Your task to perform on an android device: change keyboard looks Image 0: 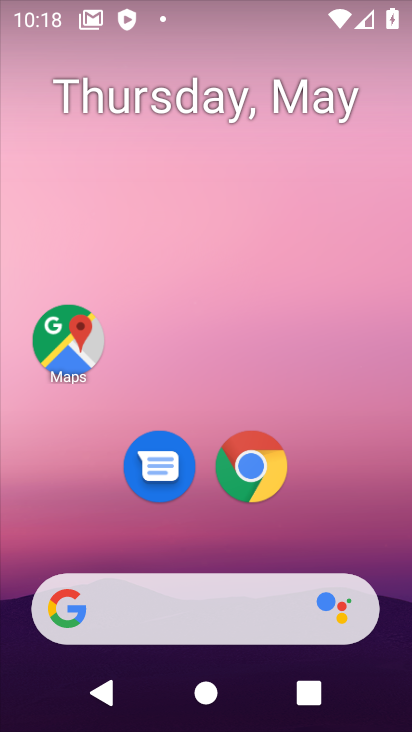
Step 0: drag from (214, 476) to (260, 173)
Your task to perform on an android device: change keyboard looks Image 1: 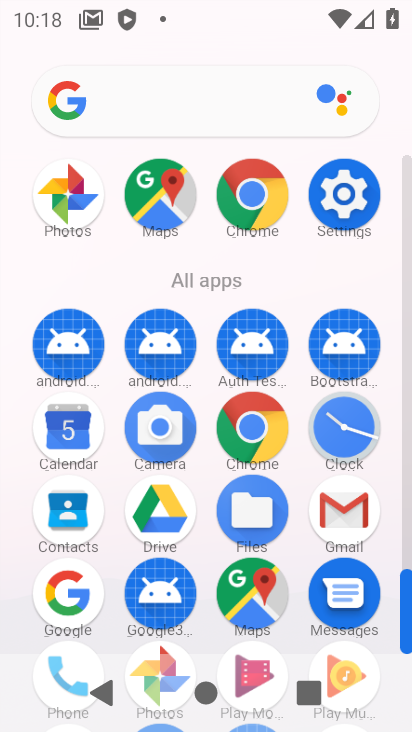
Step 1: click (337, 217)
Your task to perform on an android device: change keyboard looks Image 2: 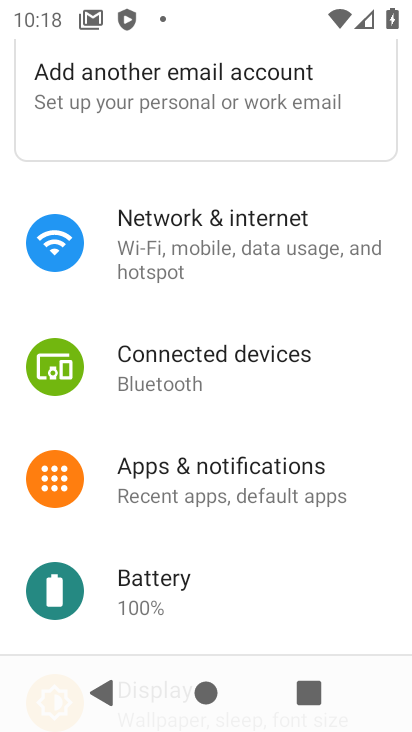
Step 2: drag from (234, 610) to (260, 203)
Your task to perform on an android device: change keyboard looks Image 3: 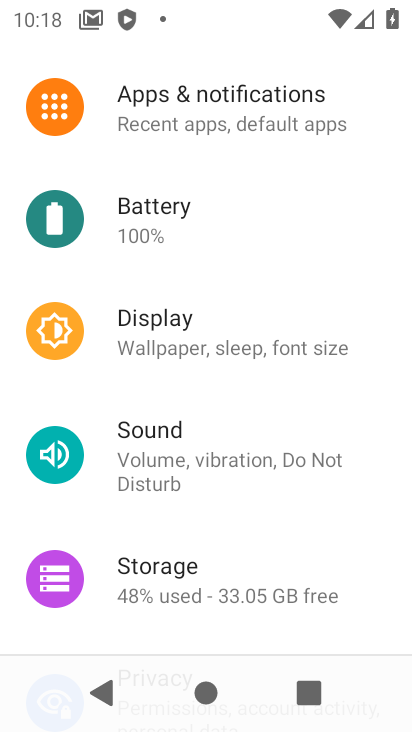
Step 3: drag from (181, 585) to (226, 258)
Your task to perform on an android device: change keyboard looks Image 4: 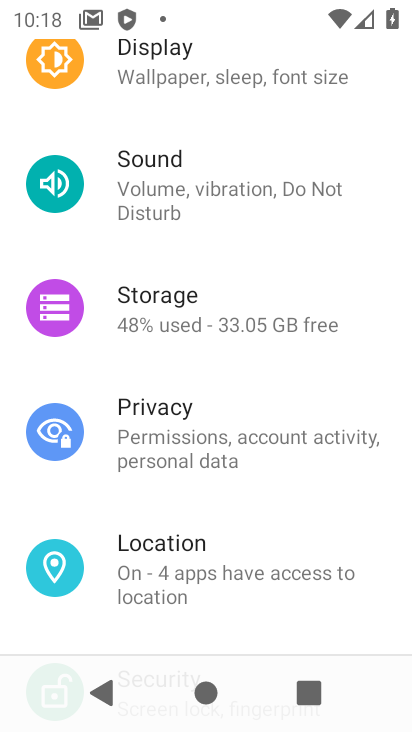
Step 4: drag from (224, 620) to (296, 252)
Your task to perform on an android device: change keyboard looks Image 5: 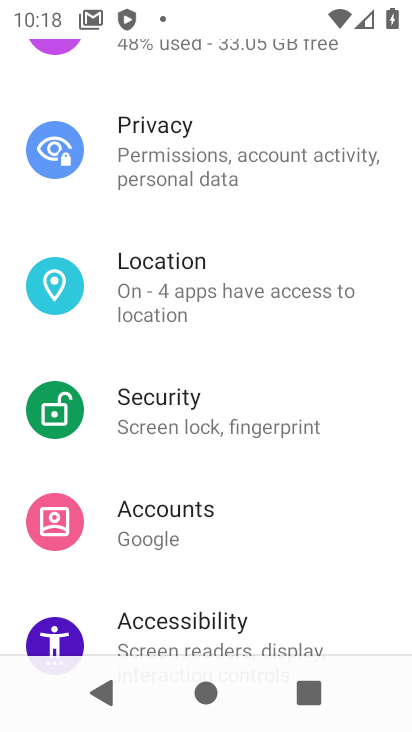
Step 5: drag from (231, 640) to (291, 319)
Your task to perform on an android device: change keyboard looks Image 6: 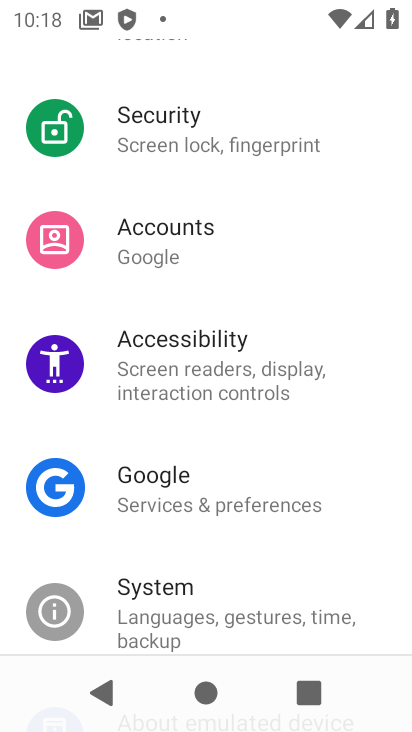
Step 6: drag from (238, 639) to (247, 347)
Your task to perform on an android device: change keyboard looks Image 7: 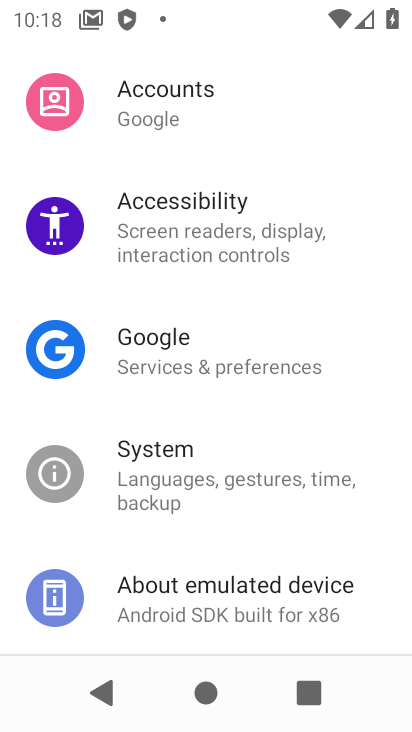
Step 7: drag from (234, 640) to (248, 327)
Your task to perform on an android device: change keyboard looks Image 8: 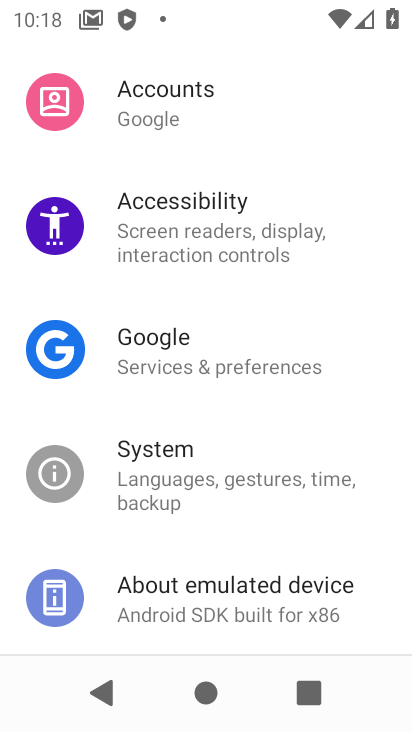
Step 8: click (173, 498)
Your task to perform on an android device: change keyboard looks Image 9: 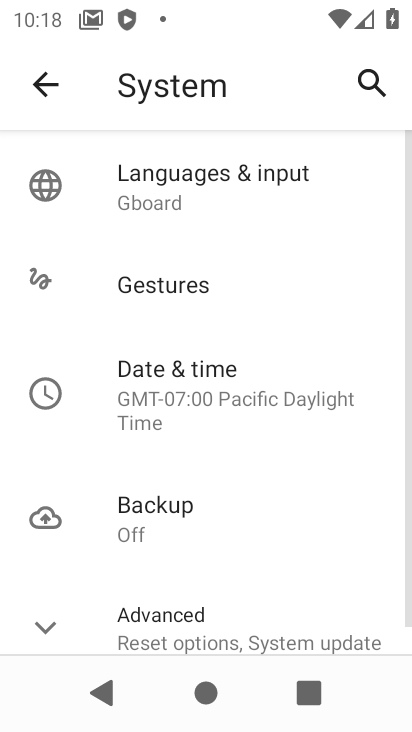
Step 9: click (176, 176)
Your task to perform on an android device: change keyboard looks Image 10: 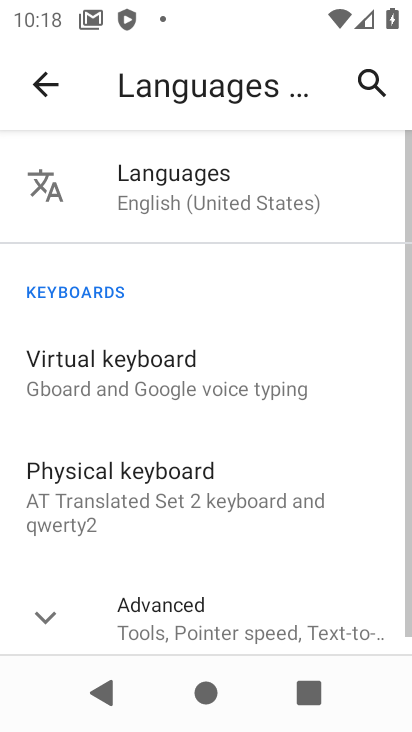
Step 10: click (143, 368)
Your task to perform on an android device: change keyboard looks Image 11: 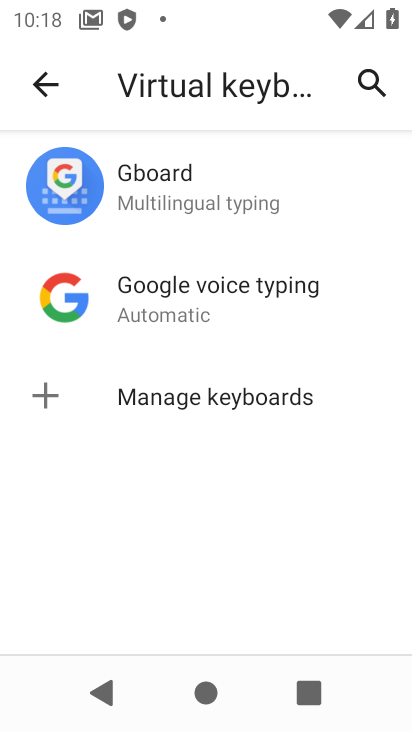
Step 11: click (179, 178)
Your task to perform on an android device: change keyboard looks Image 12: 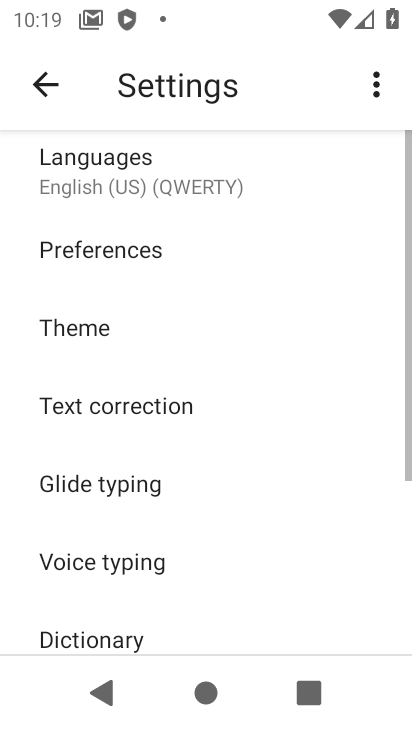
Step 12: drag from (107, 323) to (0, 328)
Your task to perform on an android device: change keyboard looks Image 13: 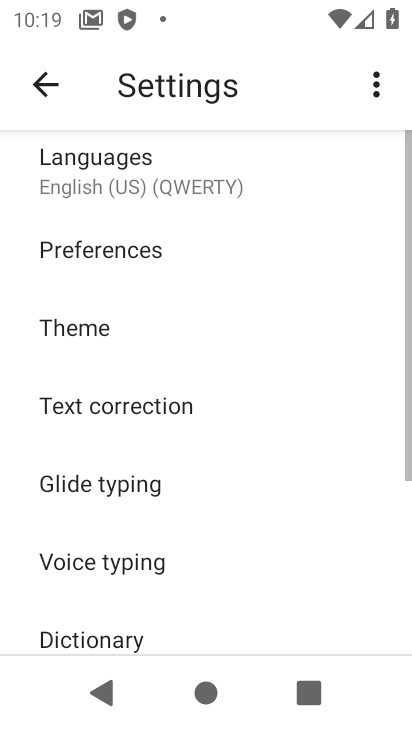
Step 13: click (40, 335)
Your task to perform on an android device: change keyboard looks Image 14: 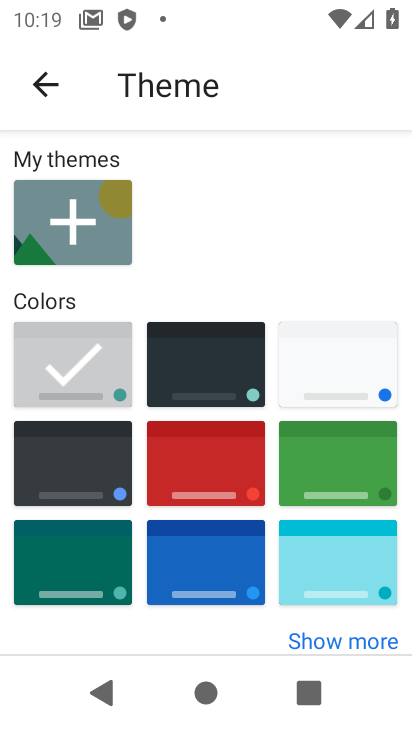
Step 14: click (206, 366)
Your task to perform on an android device: change keyboard looks Image 15: 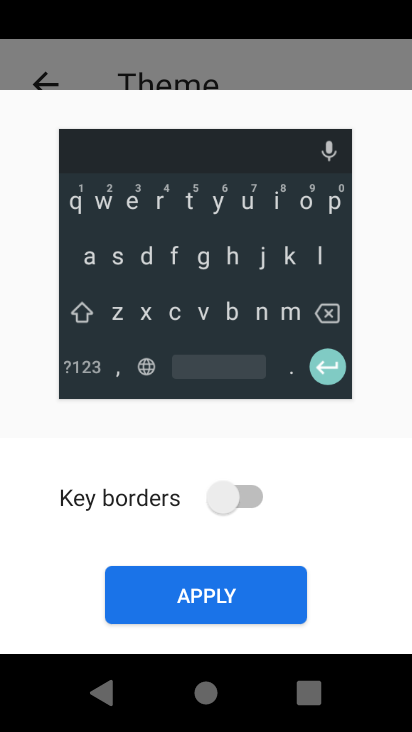
Step 15: click (230, 605)
Your task to perform on an android device: change keyboard looks Image 16: 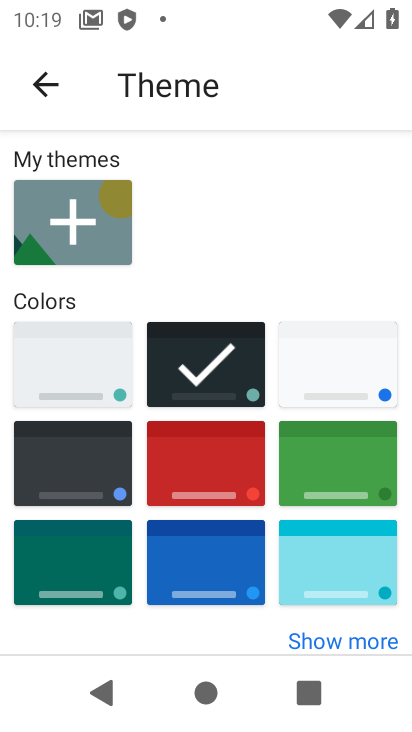
Step 16: task complete